Your task to perform on an android device: When is my next appointment? Image 0: 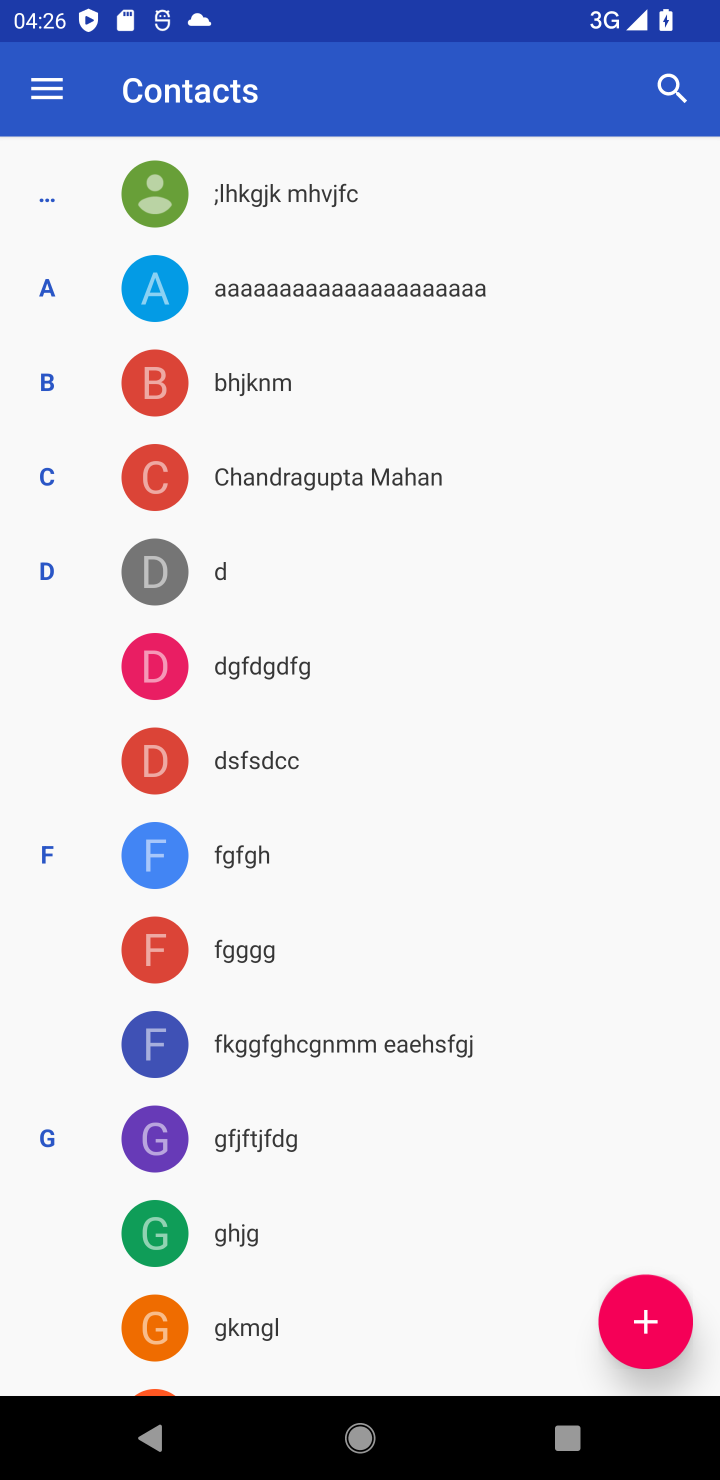
Step 0: press home button
Your task to perform on an android device: When is my next appointment? Image 1: 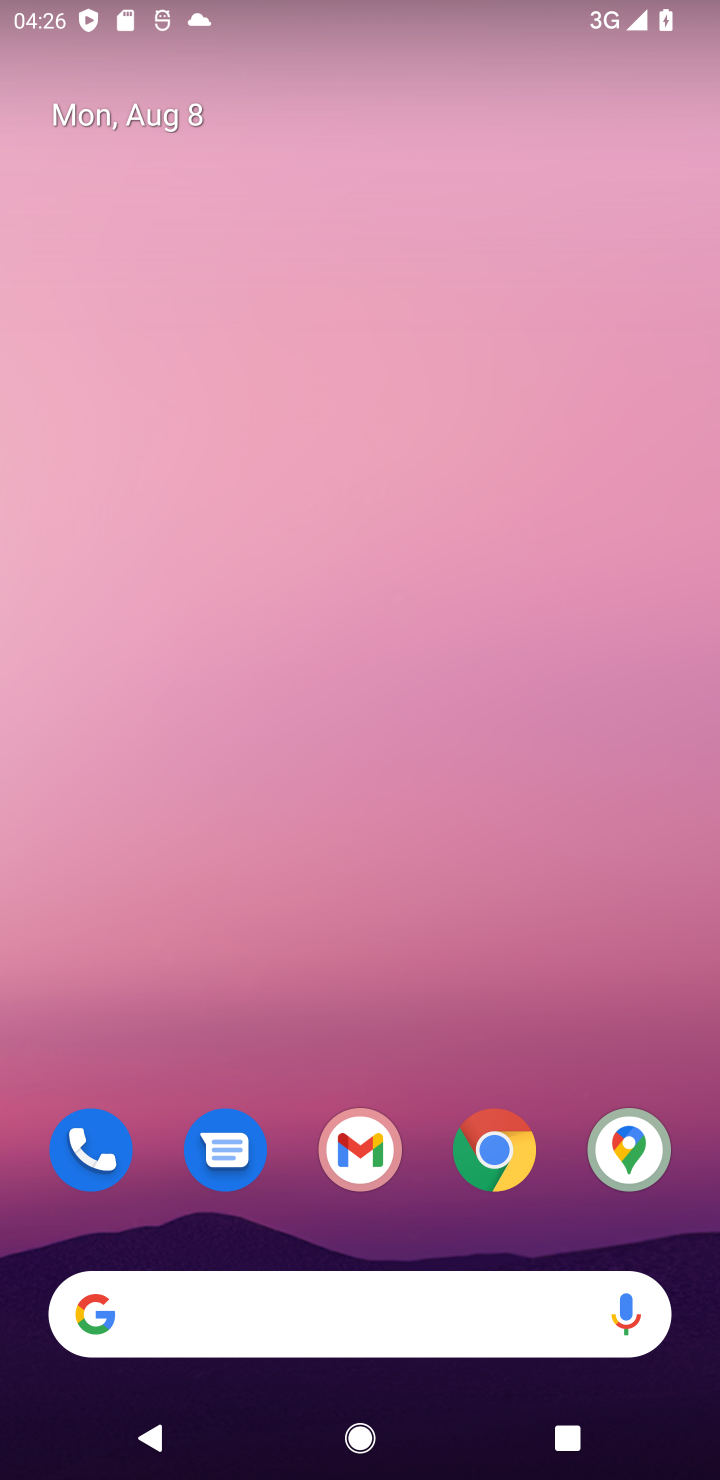
Step 1: drag from (71, 1453) to (317, 444)
Your task to perform on an android device: When is my next appointment? Image 2: 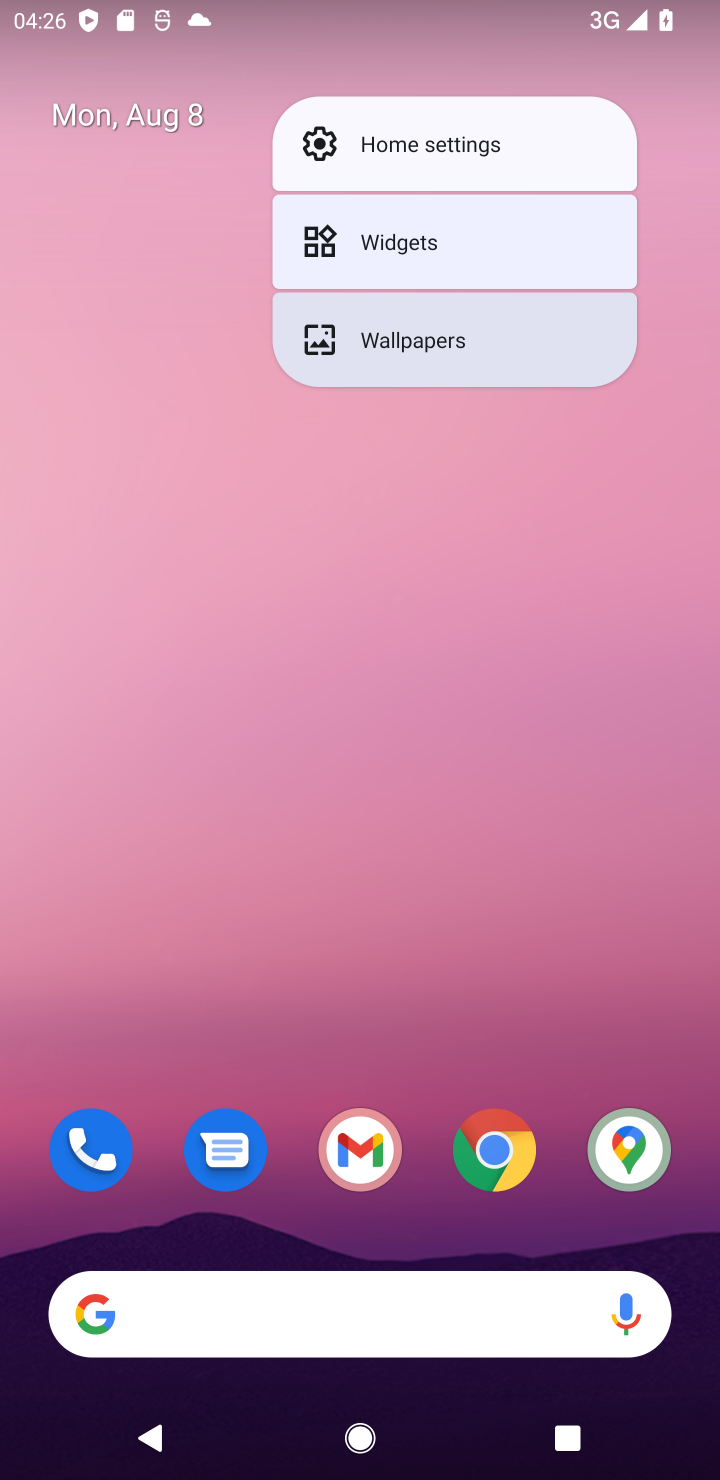
Step 2: click (92, 1431)
Your task to perform on an android device: When is my next appointment? Image 3: 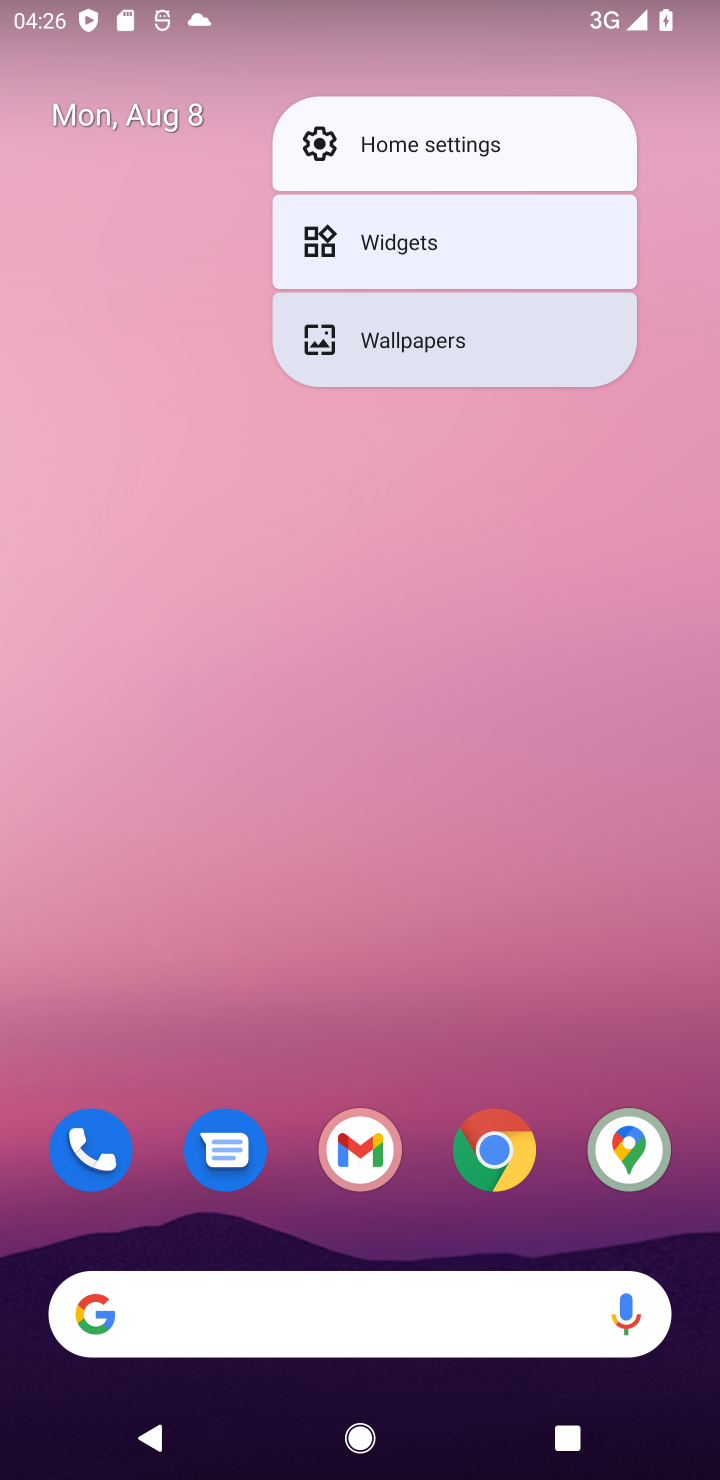
Step 3: drag from (89, 1438) to (399, 521)
Your task to perform on an android device: When is my next appointment? Image 4: 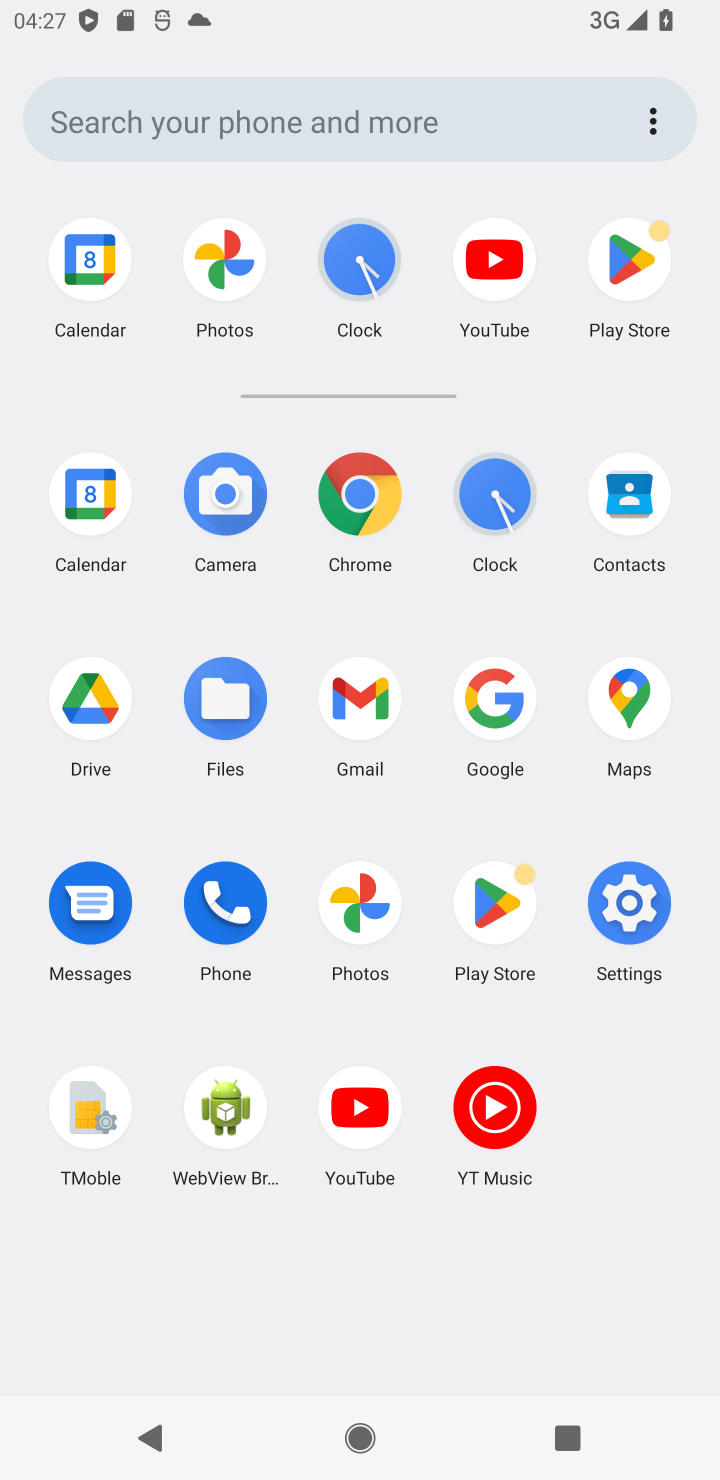
Step 4: click (84, 525)
Your task to perform on an android device: When is my next appointment? Image 5: 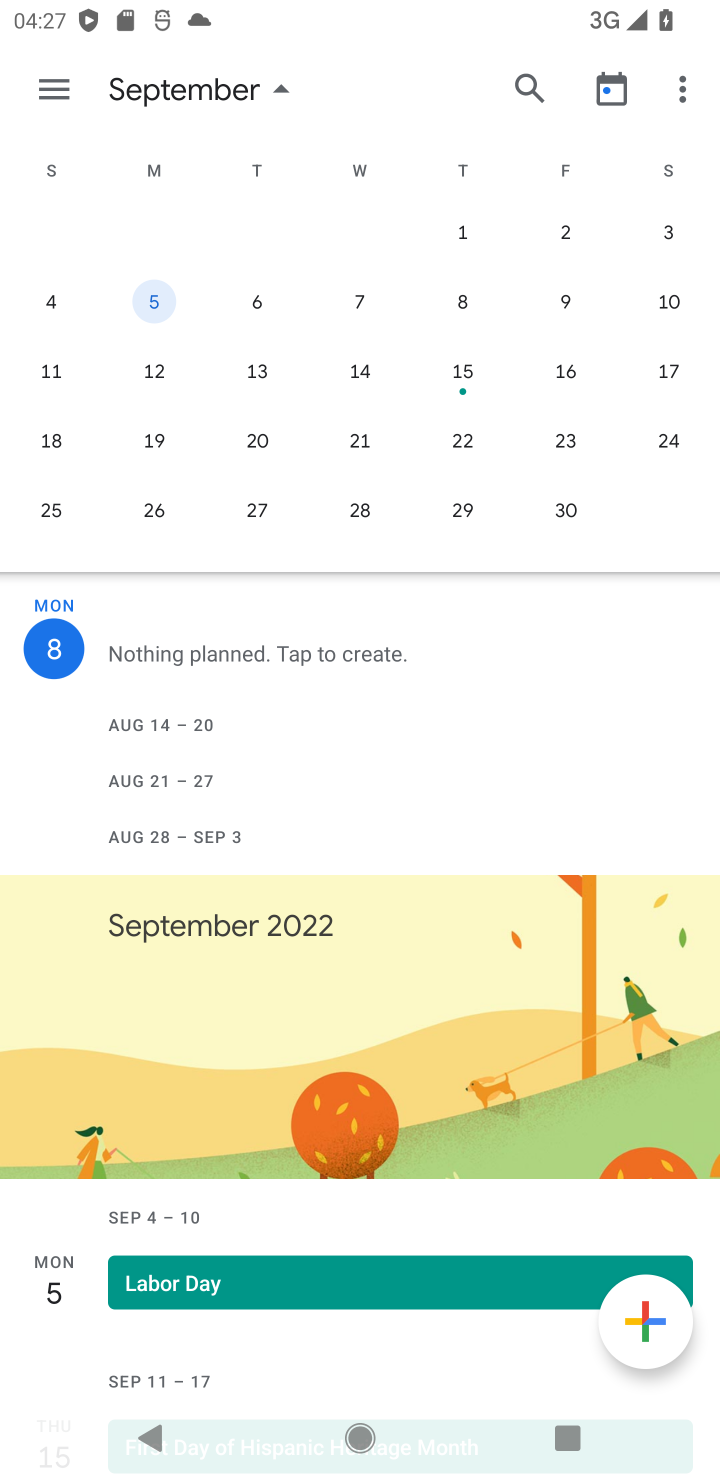
Step 5: drag from (28, 329) to (681, 302)
Your task to perform on an android device: When is my next appointment? Image 6: 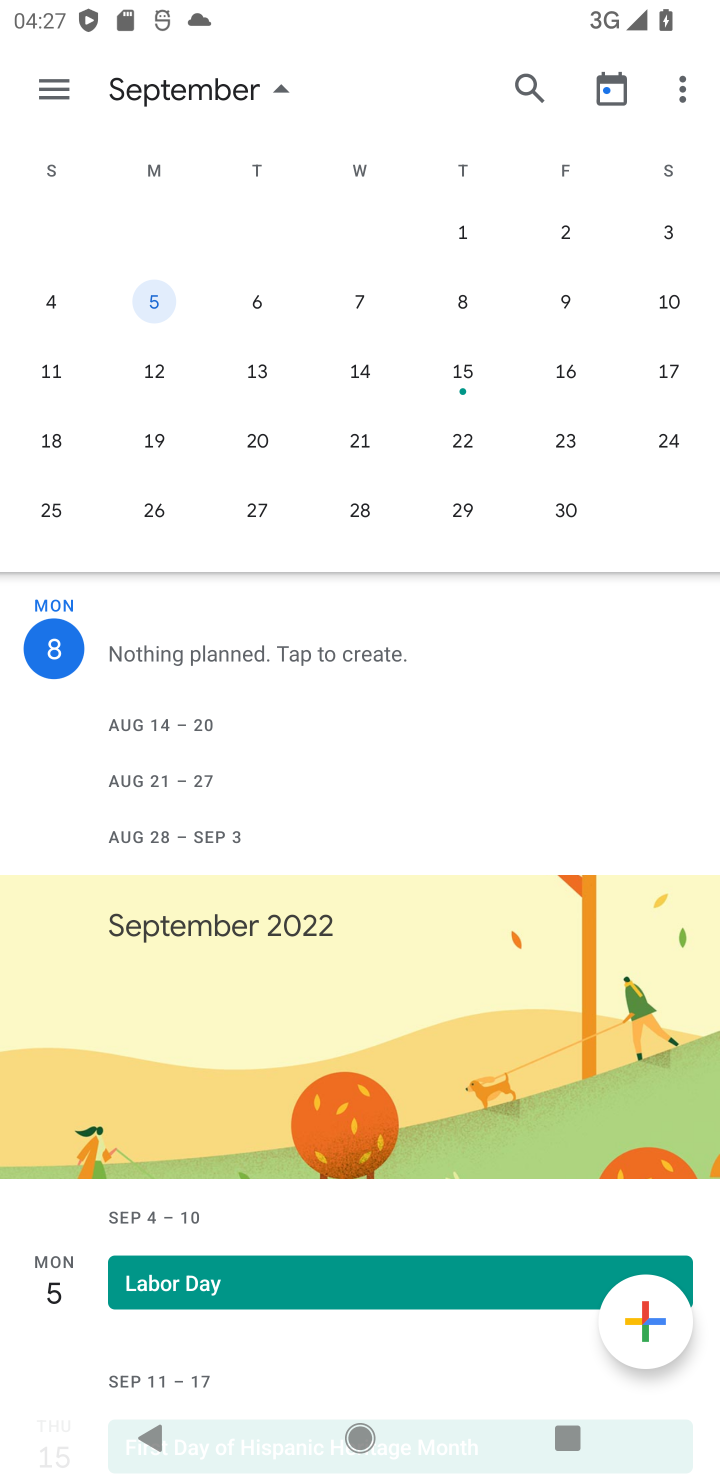
Step 6: drag from (18, 317) to (581, 315)
Your task to perform on an android device: When is my next appointment? Image 7: 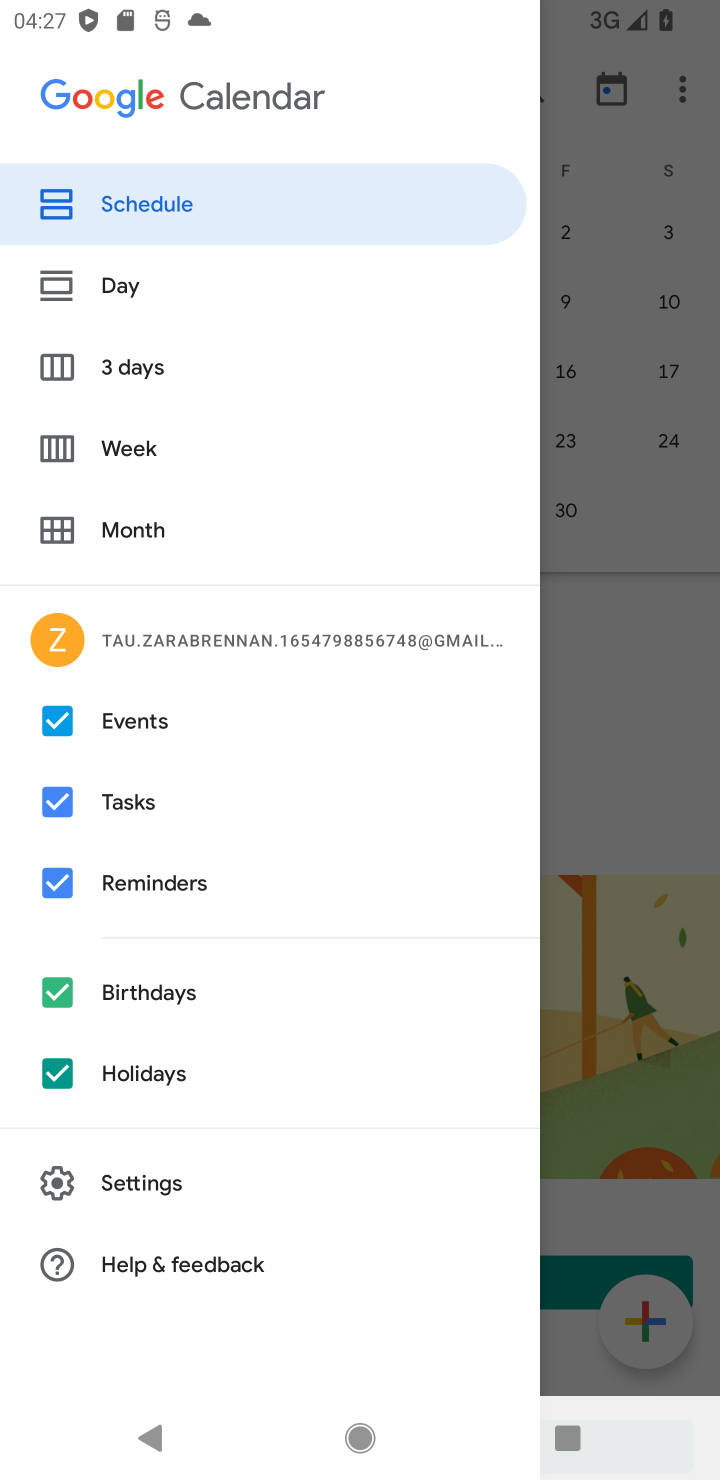
Step 7: click (621, 668)
Your task to perform on an android device: When is my next appointment? Image 8: 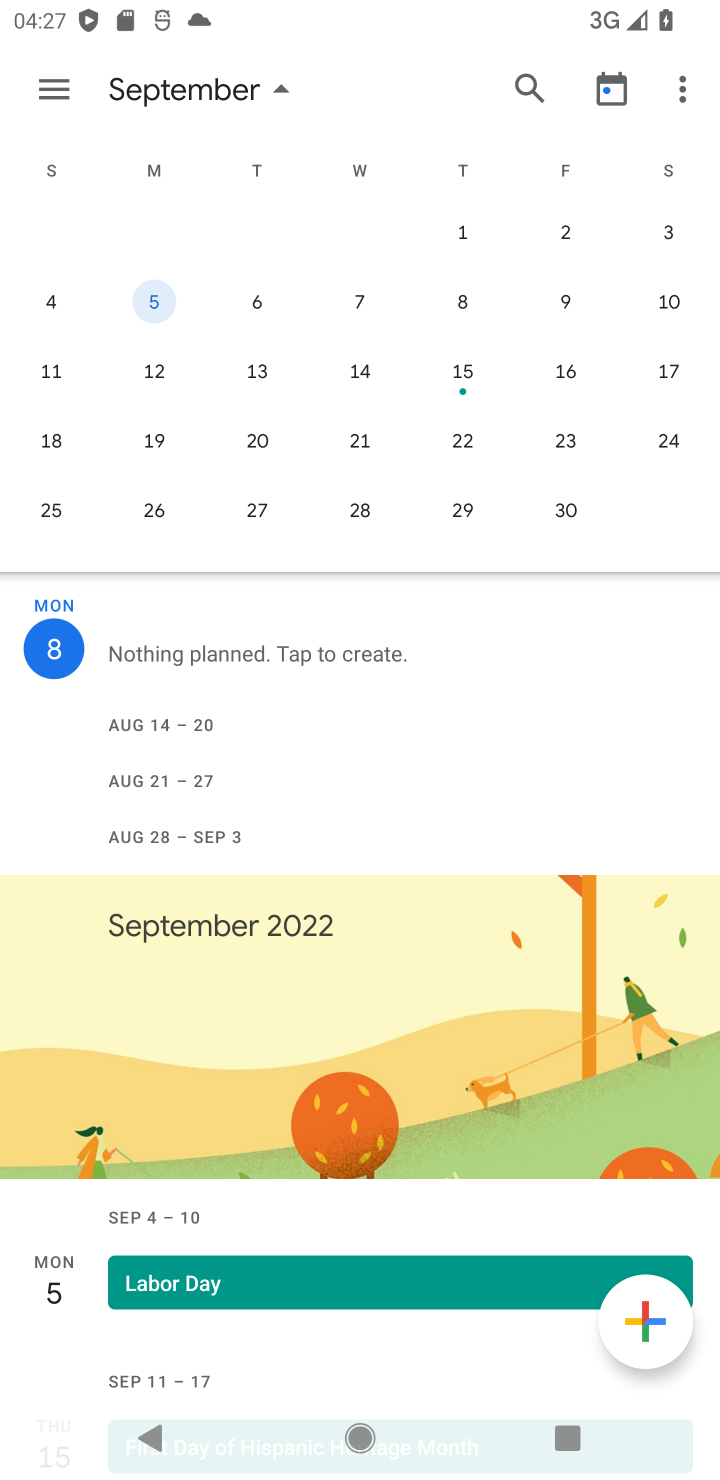
Step 8: drag from (14, 316) to (656, 291)
Your task to perform on an android device: When is my next appointment? Image 9: 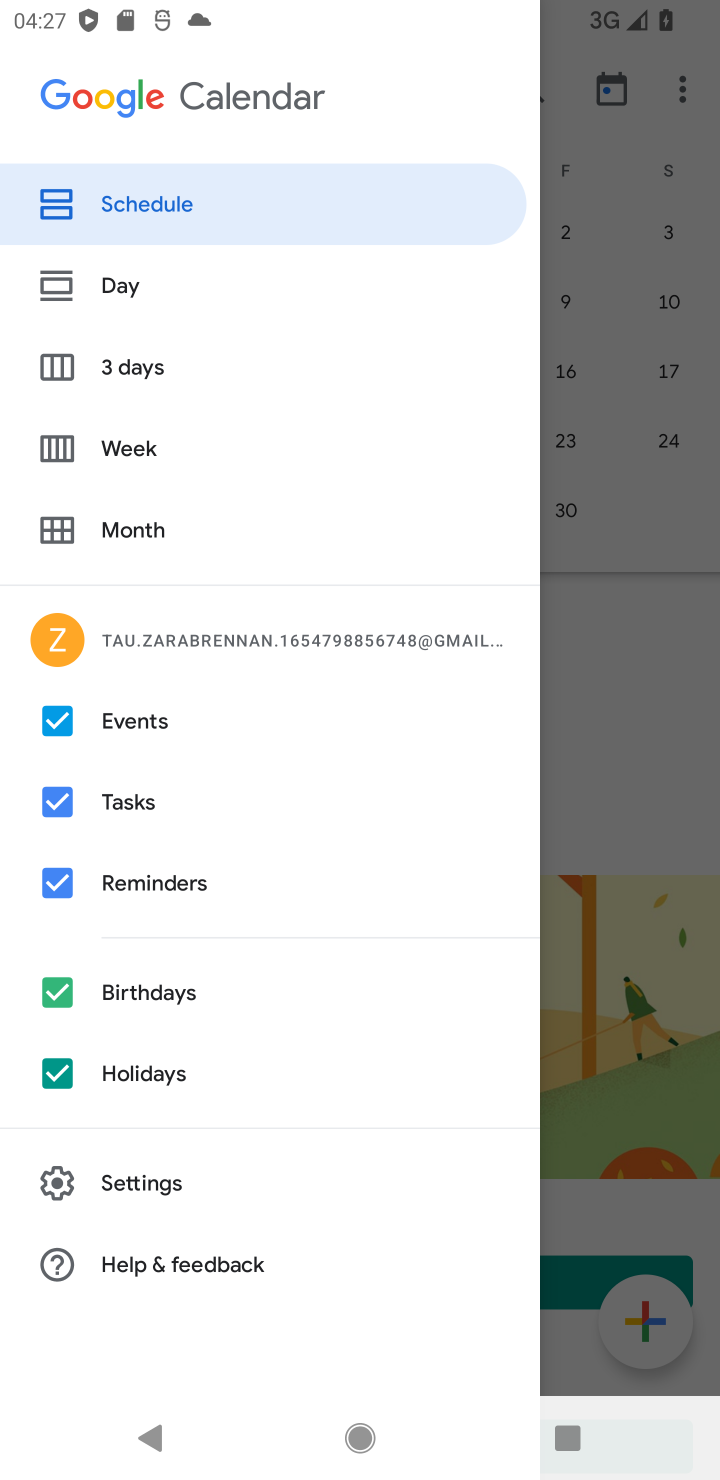
Step 9: click (690, 681)
Your task to perform on an android device: When is my next appointment? Image 10: 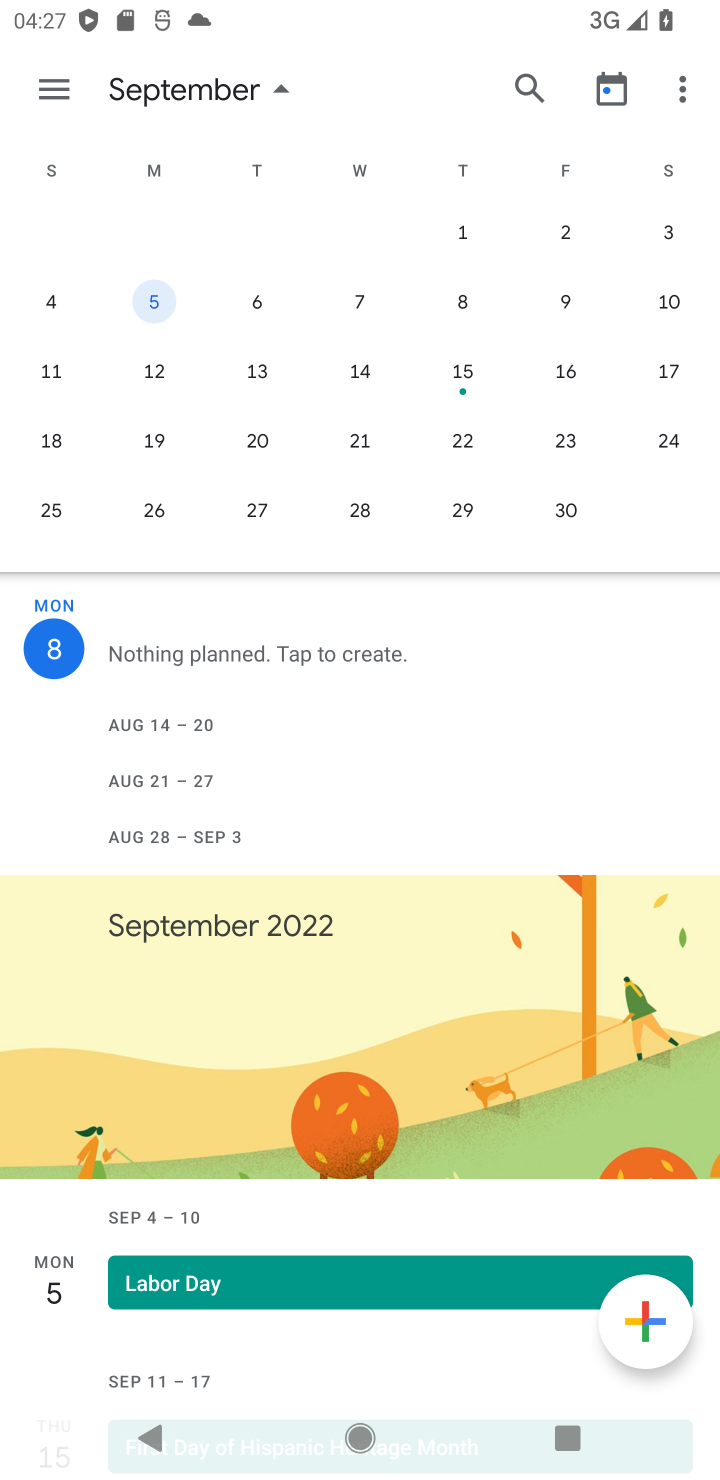
Step 10: click (690, 681)
Your task to perform on an android device: When is my next appointment? Image 11: 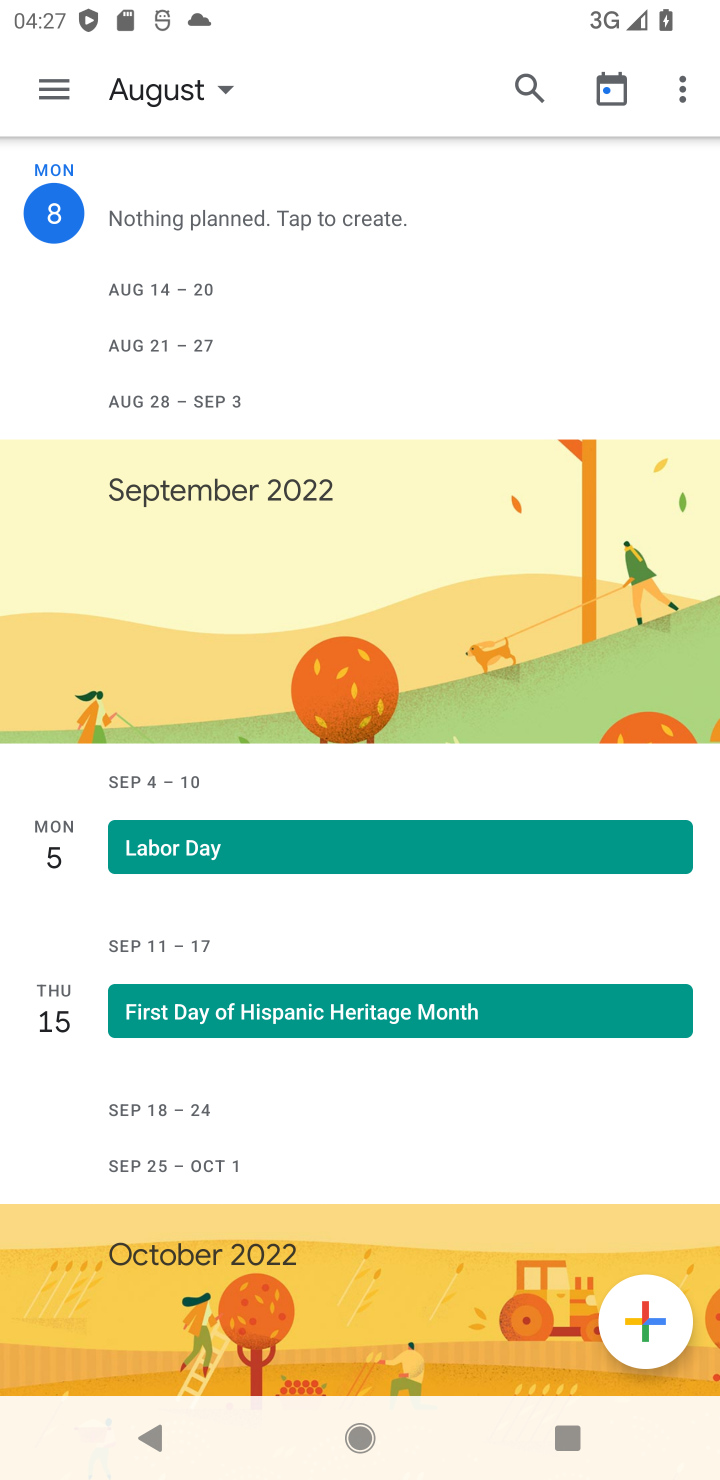
Step 11: click (216, 119)
Your task to perform on an android device: When is my next appointment? Image 12: 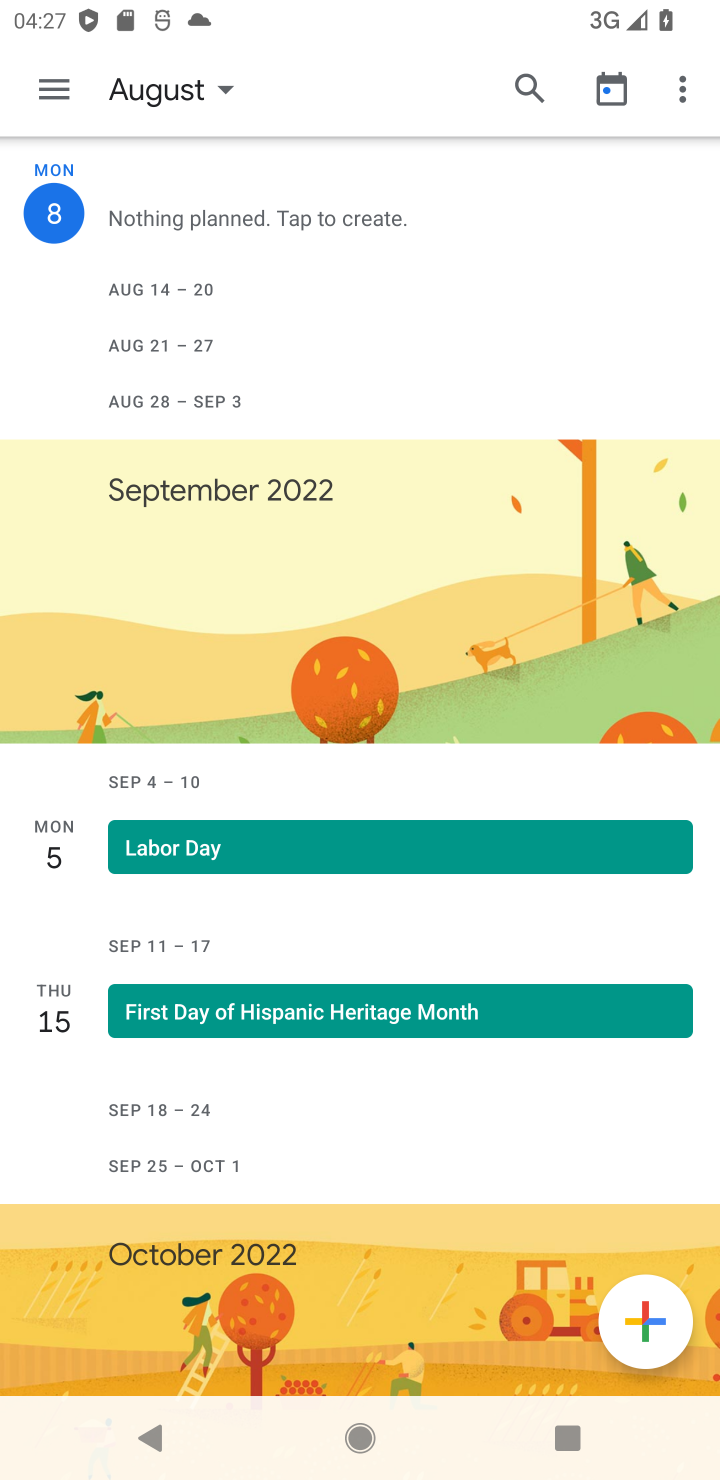
Step 12: click (219, 97)
Your task to perform on an android device: When is my next appointment? Image 13: 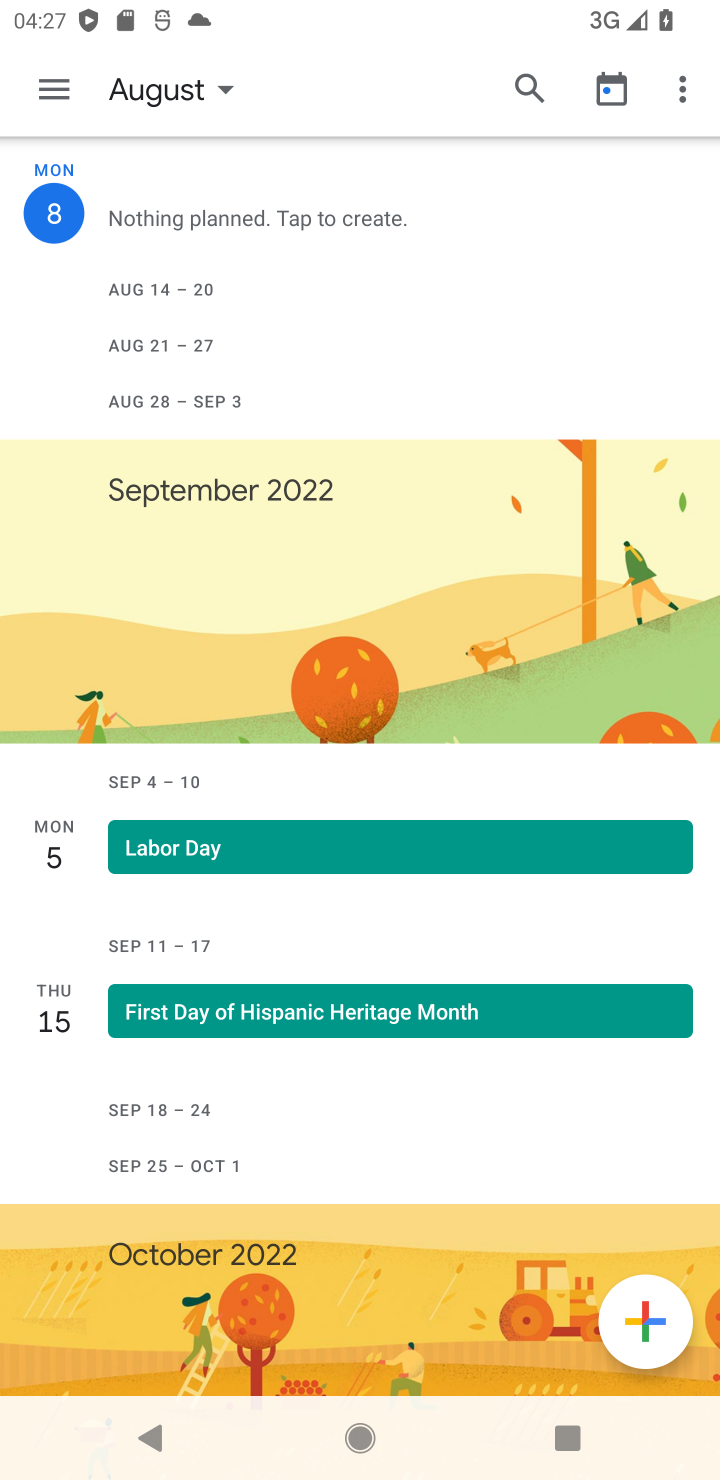
Step 13: click (229, 83)
Your task to perform on an android device: When is my next appointment? Image 14: 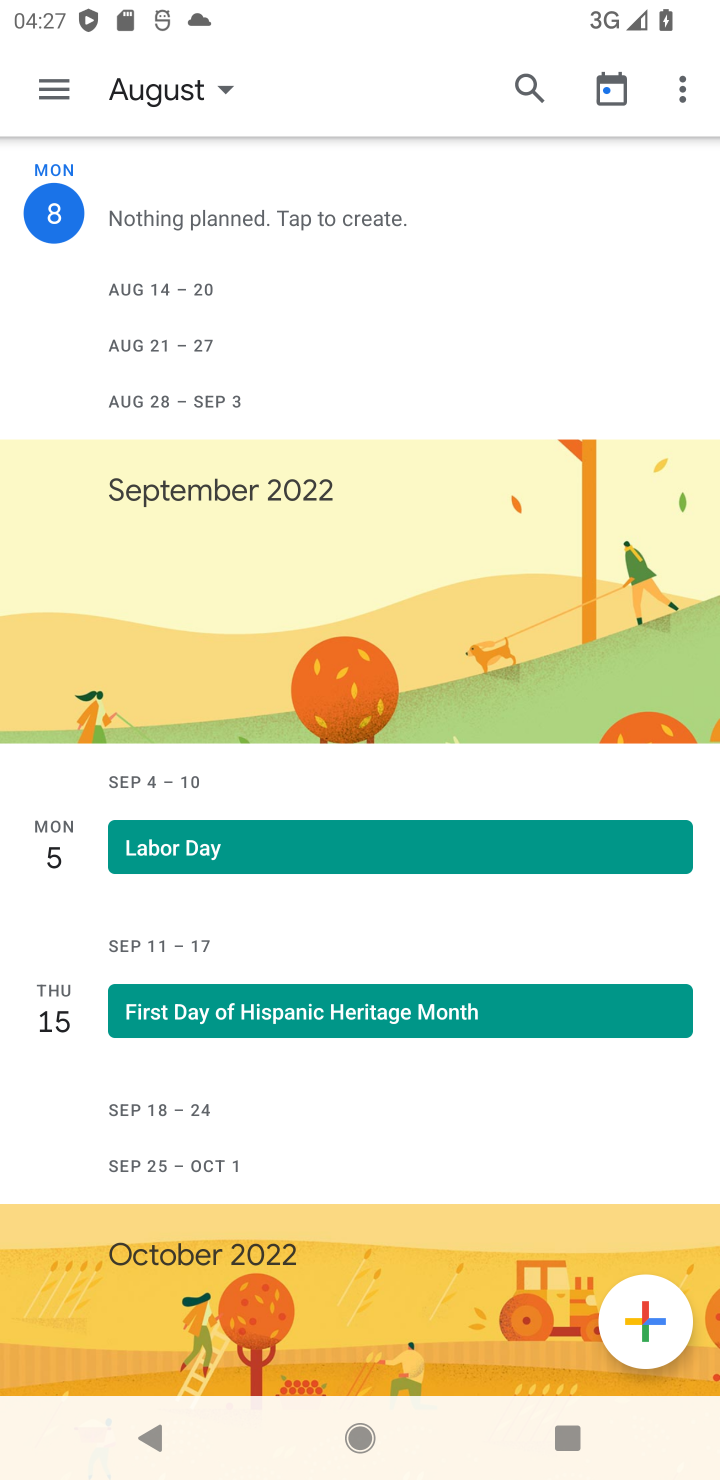
Step 14: task complete